Your task to perform on an android device: Open battery settings Image 0: 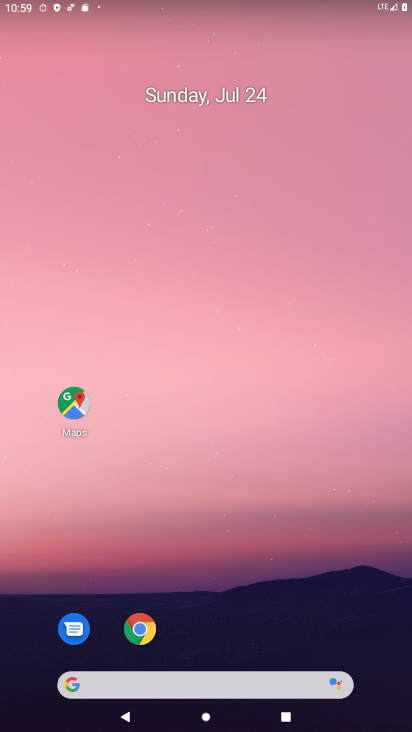
Step 0: click (144, 101)
Your task to perform on an android device: Open battery settings Image 1: 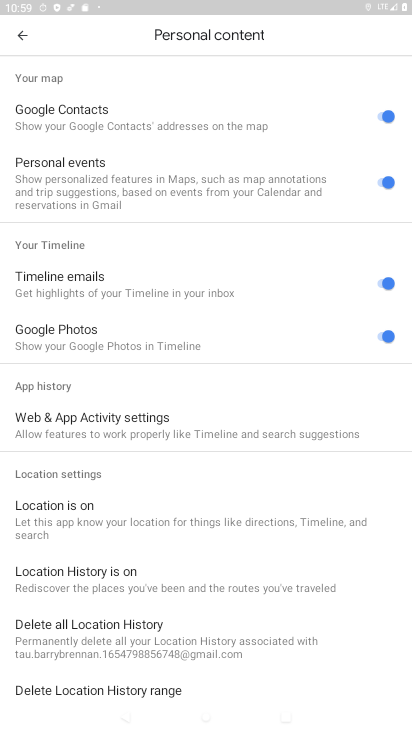
Step 1: click (28, 38)
Your task to perform on an android device: Open battery settings Image 2: 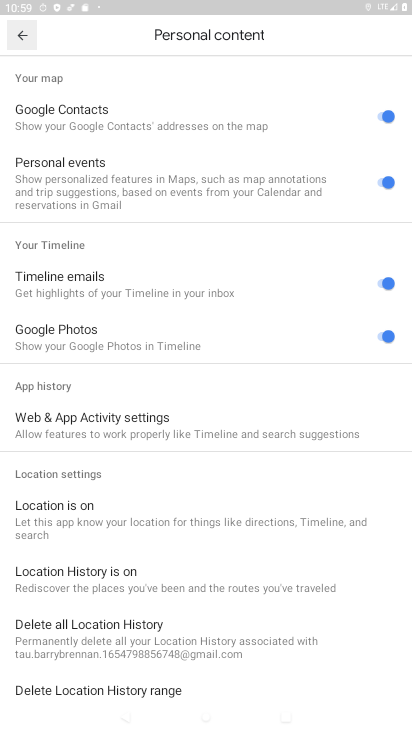
Step 2: click (15, 23)
Your task to perform on an android device: Open battery settings Image 3: 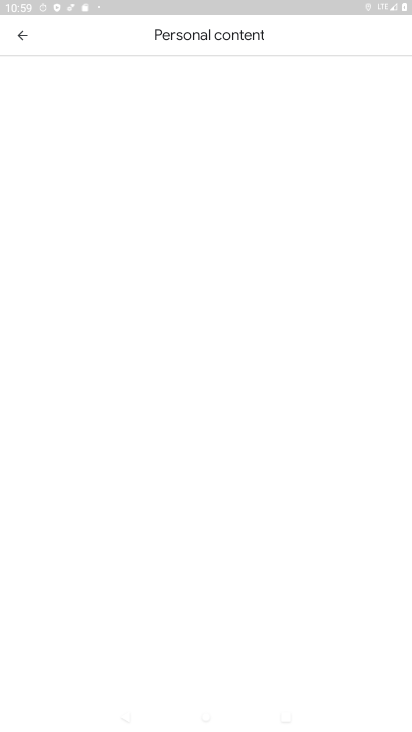
Step 3: click (16, 16)
Your task to perform on an android device: Open battery settings Image 4: 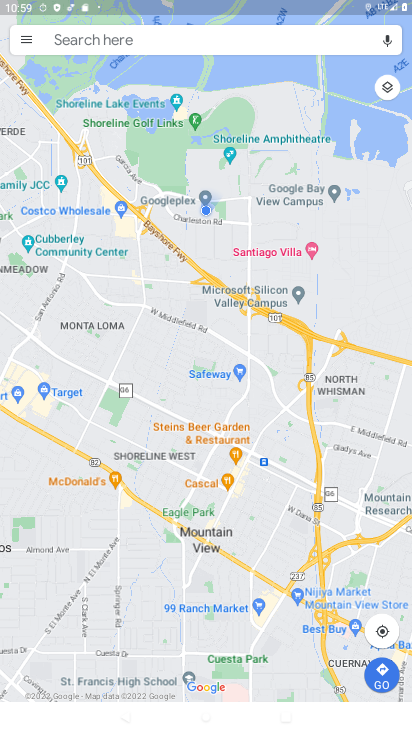
Step 4: press back button
Your task to perform on an android device: Open battery settings Image 5: 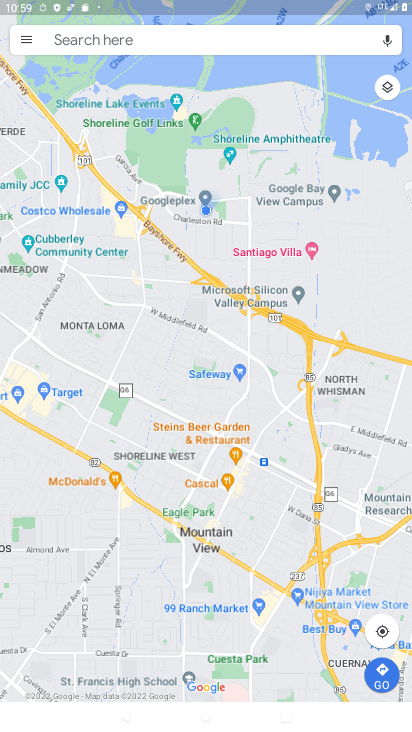
Step 5: press back button
Your task to perform on an android device: Open battery settings Image 6: 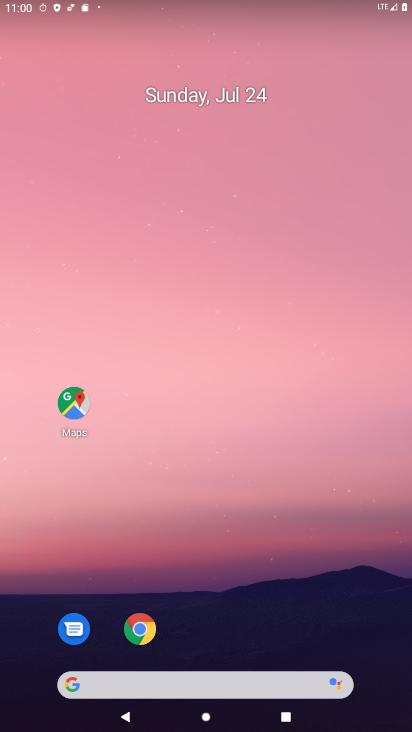
Step 6: drag from (279, 638) to (215, 28)
Your task to perform on an android device: Open battery settings Image 7: 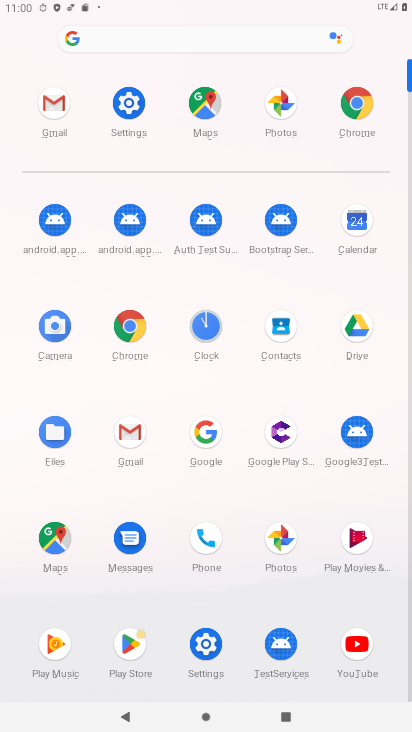
Step 7: click (130, 120)
Your task to perform on an android device: Open battery settings Image 8: 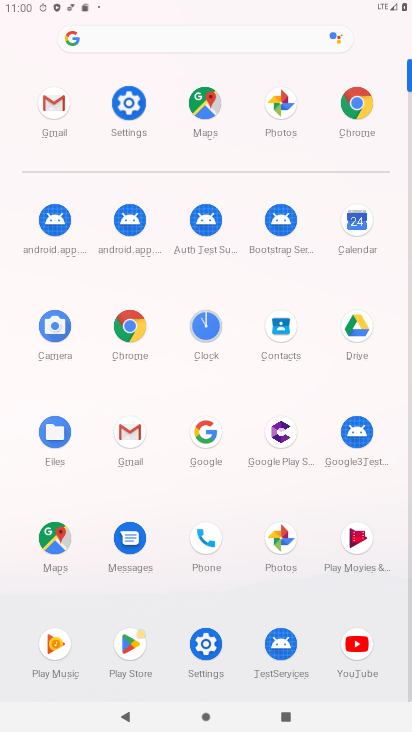
Step 8: click (136, 112)
Your task to perform on an android device: Open battery settings Image 9: 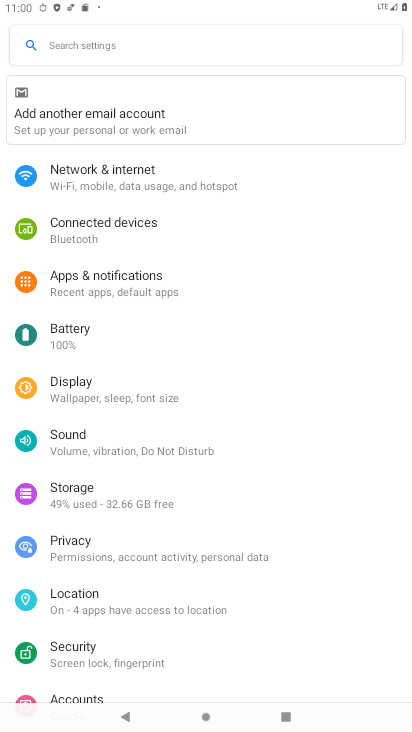
Step 9: click (78, 337)
Your task to perform on an android device: Open battery settings Image 10: 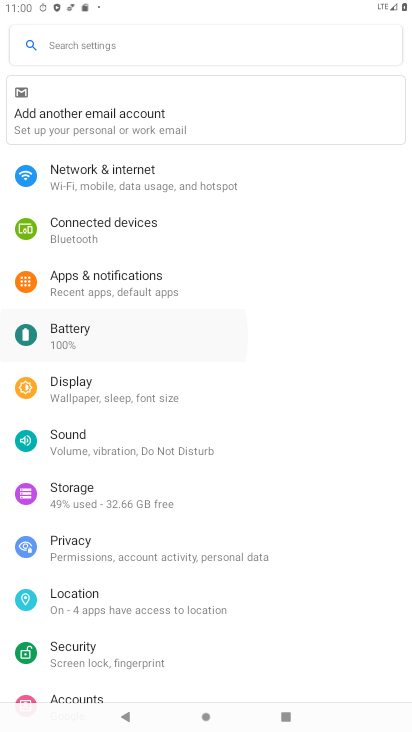
Step 10: click (71, 328)
Your task to perform on an android device: Open battery settings Image 11: 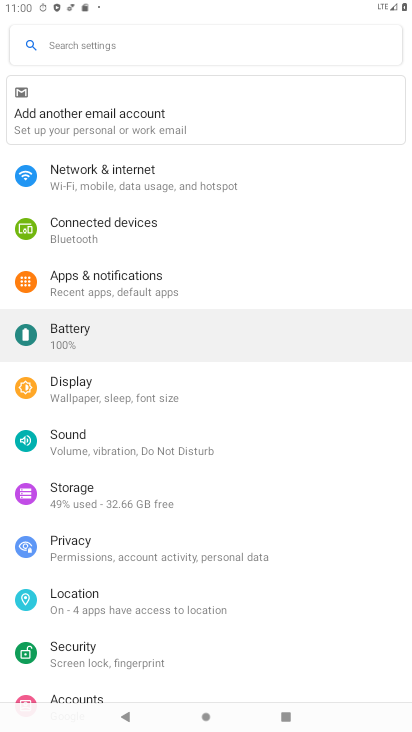
Step 11: click (70, 324)
Your task to perform on an android device: Open battery settings Image 12: 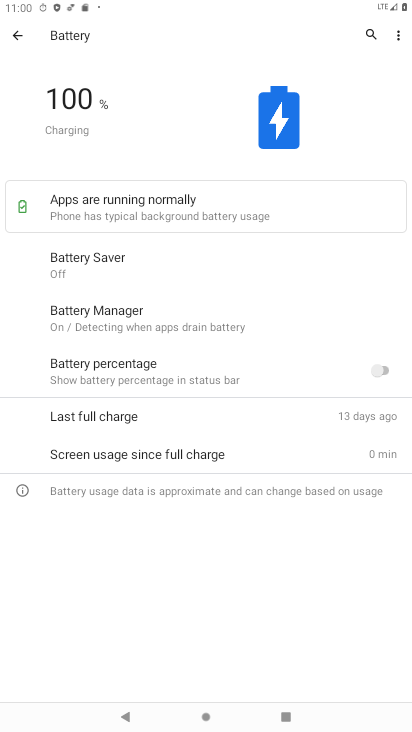
Step 12: task complete